Your task to perform on an android device: Open CNN.com Image 0: 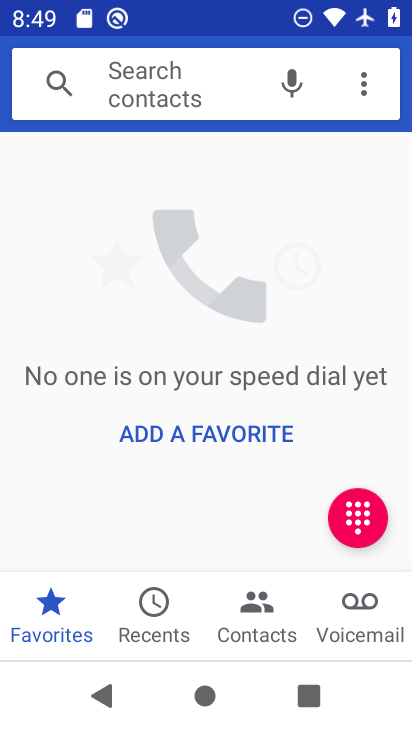
Step 0: press home button
Your task to perform on an android device: Open CNN.com Image 1: 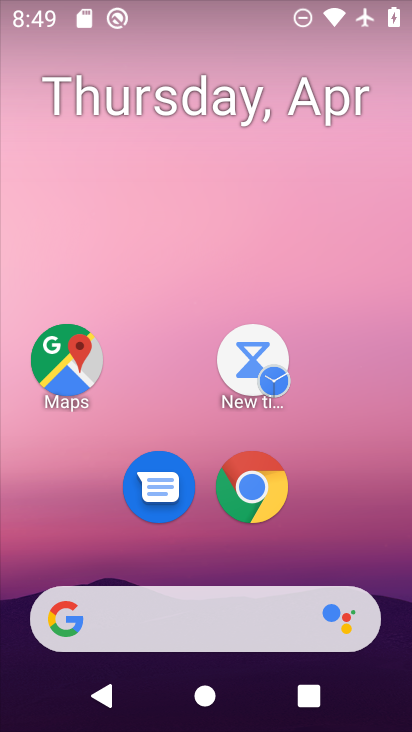
Step 1: drag from (344, 527) to (338, 183)
Your task to perform on an android device: Open CNN.com Image 2: 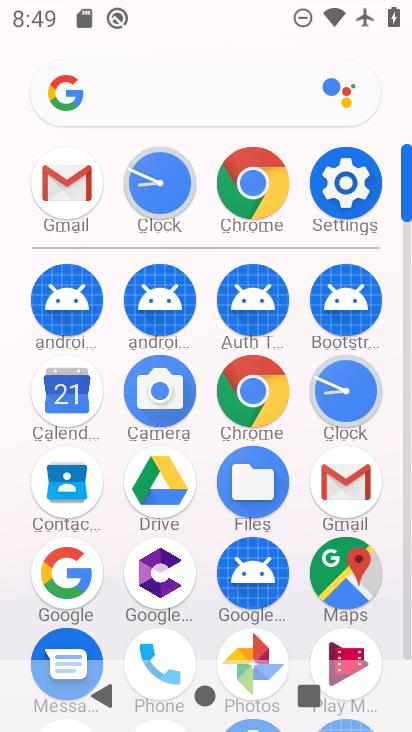
Step 2: click (254, 190)
Your task to perform on an android device: Open CNN.com Image 3: 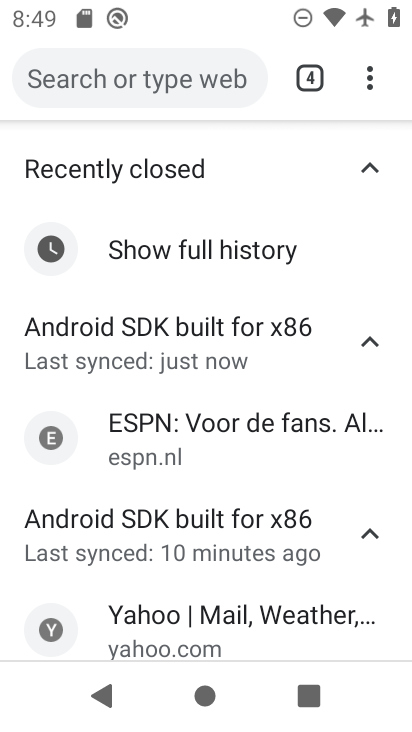
Step 3: click (201, 82)
Your task to perform on an android device: Open CNN.com Image 4: 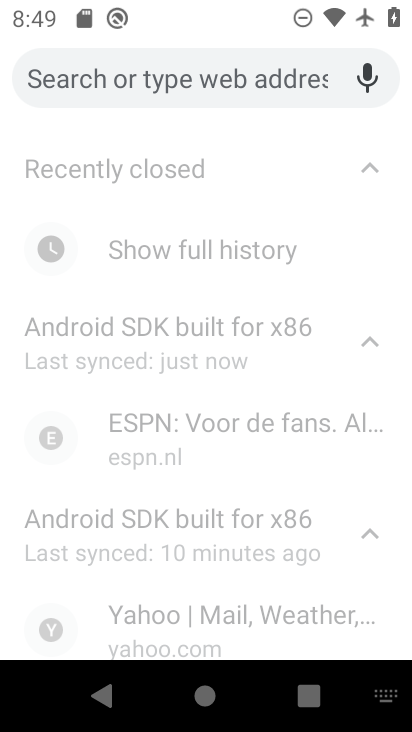
Step 4: press back button
Your task to perform on an android device: Open CNN.com Image 5: 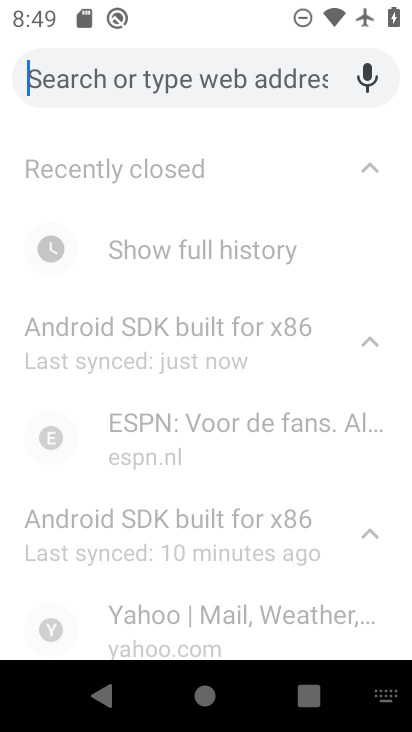
Step 5: type "c"
Your task to perform on an android device: Open CNN.com Image 6: 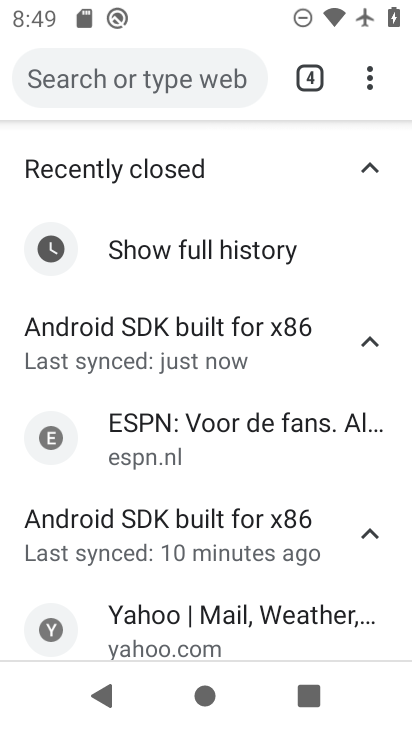
Step 6: click (310, 85)
Your task to perform on an android device: Open CNN.com Image 7: 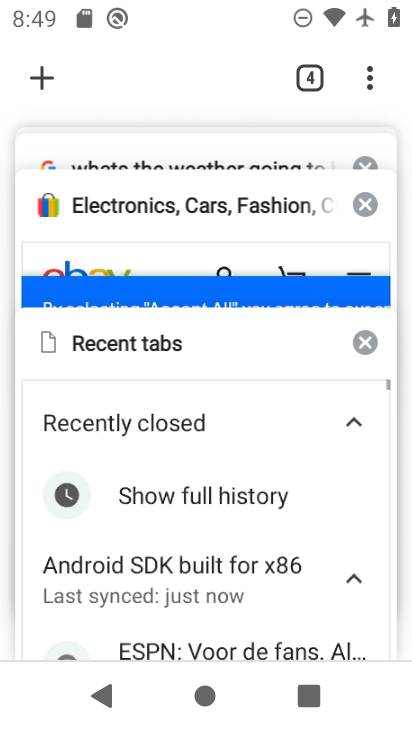
Step 7: drag from (235, 258) to (159, 603)
Your task to perform on an android device: Open CNN.com Image 8: 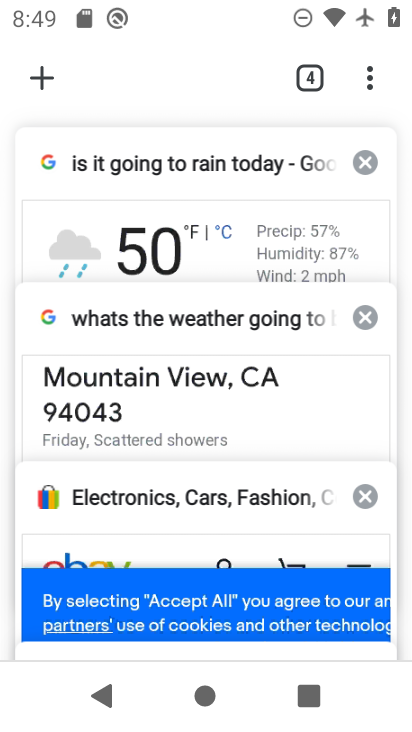
Step 8: drag from (165, 577) to (185, 203)
Your task to perform on an android device: Open CNN.com Image 9: 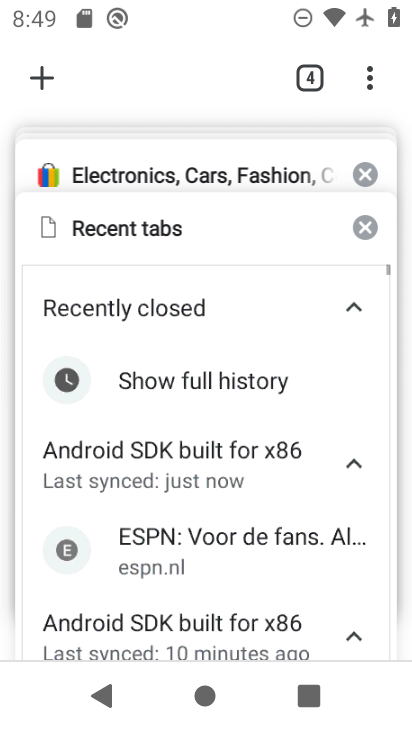
Step 9: click (197, 263)
Your task to perform on an android device: Open CNN.com Image 10: 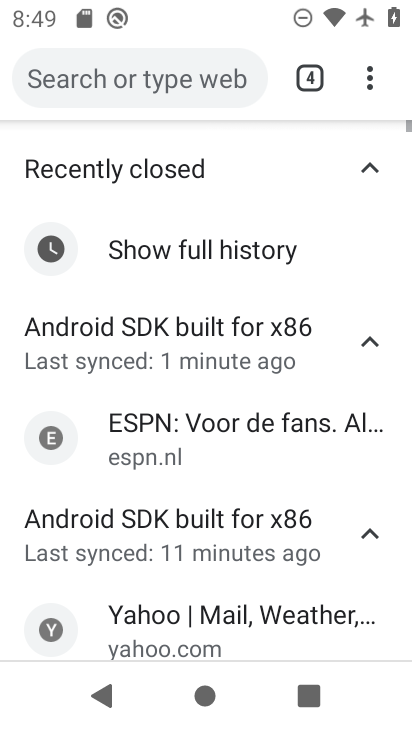
Step 10: click (163, 77)
Your task to perform on an android device: Open CNN.com Image 11: 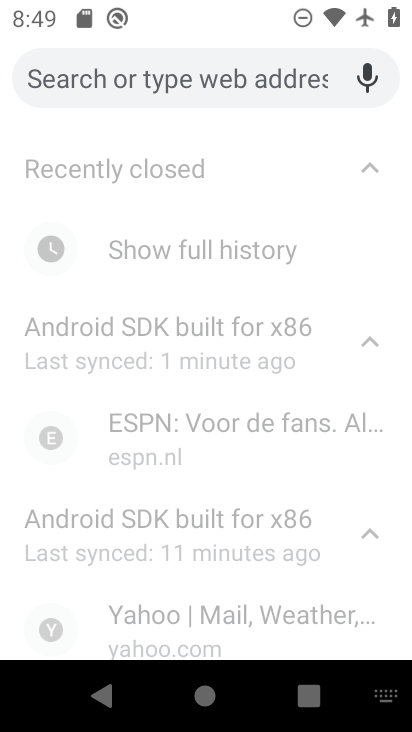
Step 11: type "cnn.com"
Your task to perform on an android device: Open CNN.com Image 12: 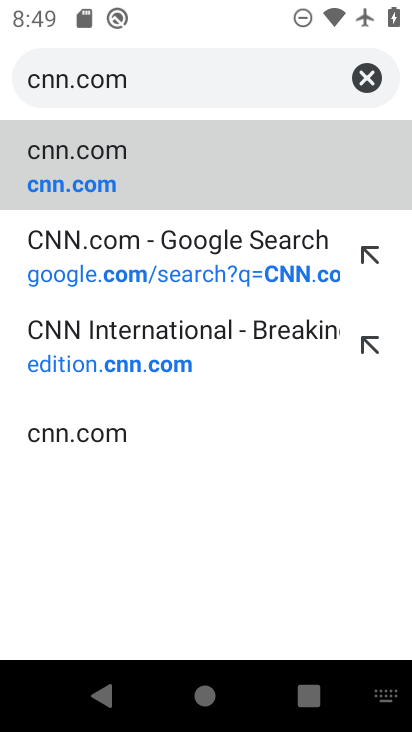
Step 12: click (143, 171)
Your task to perform on an android device: Open CNN.com Image 13: 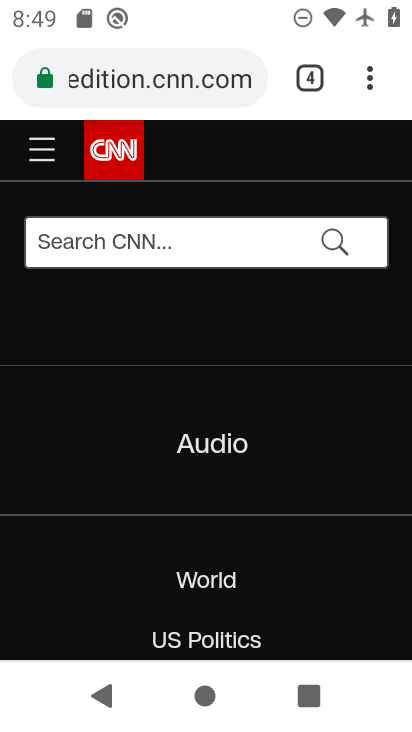
Step 13: task complete